Your task to perform on an android device: check android version Image 0: 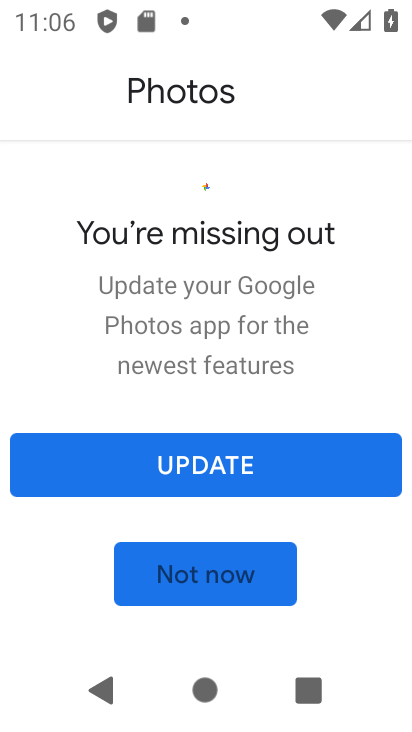
Step 0: press home button
Your task to perform on an android device: check android version Image 1: 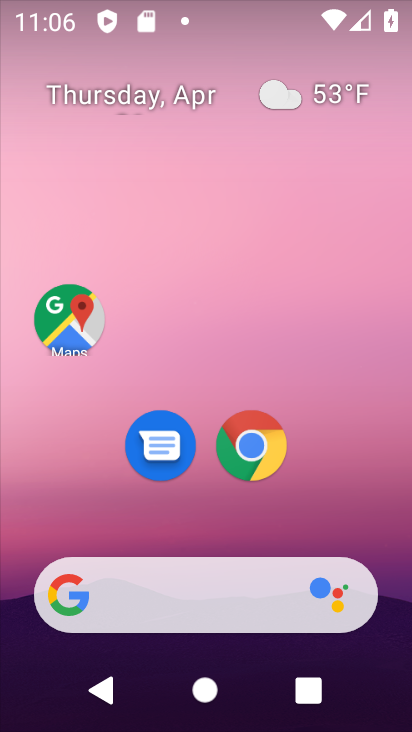
Step 1: drag from (139, 608) to (317, 131)
Your task to perform on an android device: check android version Image 2: 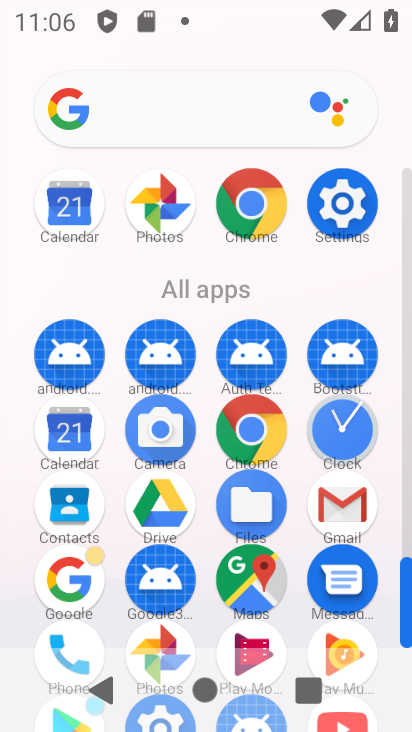
Step 2: click (332, 210)
Your task to perform on an android device: check android version Image 3: 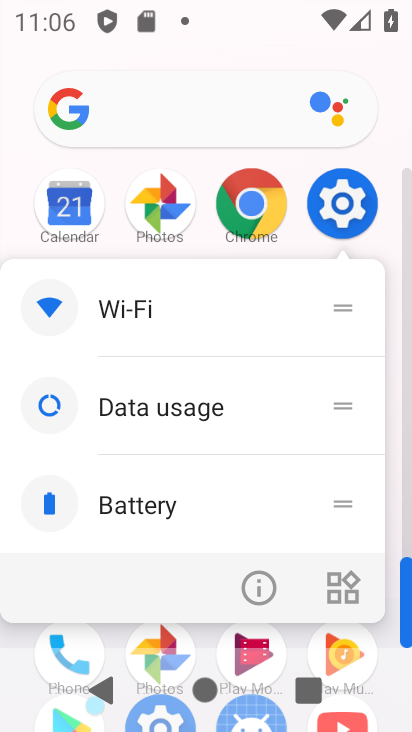
Step 3: click (347, 217)
Your task to perform on an android device: check android version Image 4: 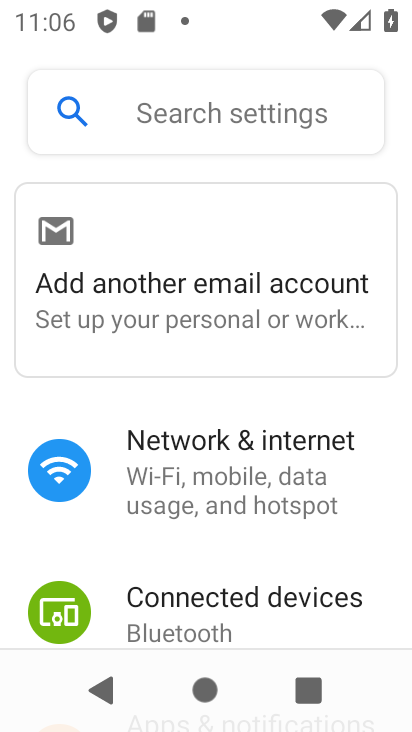
Step 4: drag from (237, 558) to (334, 218)
Your task to perform on an android device: check android version Image 5: 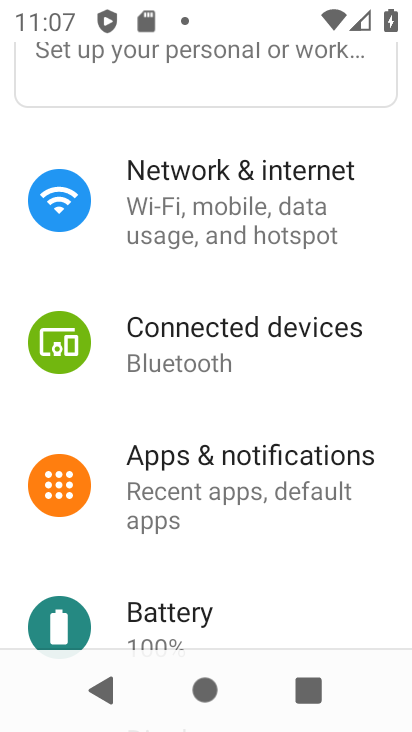
Step 5: drag from (242, 541) to (343, 185)
Your task to perform on an android device: check android version Image 6: 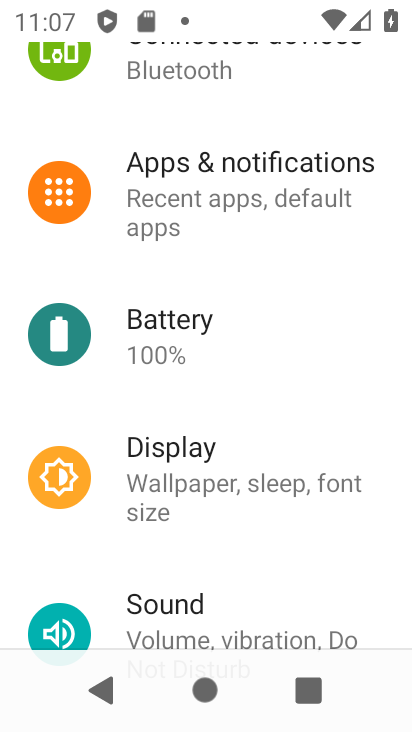
Step 6: drag from (147, 622) to (270, 283)
Your task to perform on an android device: check android version Image 7: 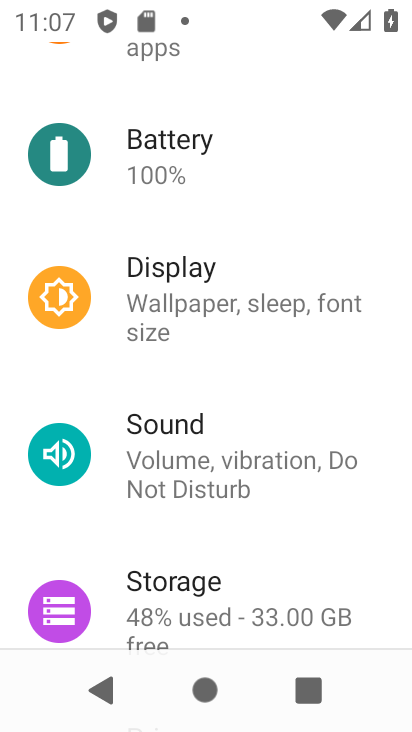
Step 7: drag from (168, 570) to (383, 121)
Your task to perform on an android device: check android version Image 8: 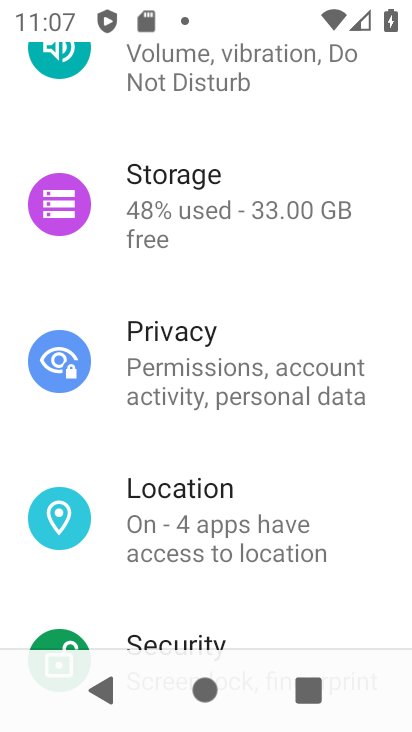
Step 8: drag from (173, 615) to (411, 64)
Your task to perform on an android device: check android version Image 9: 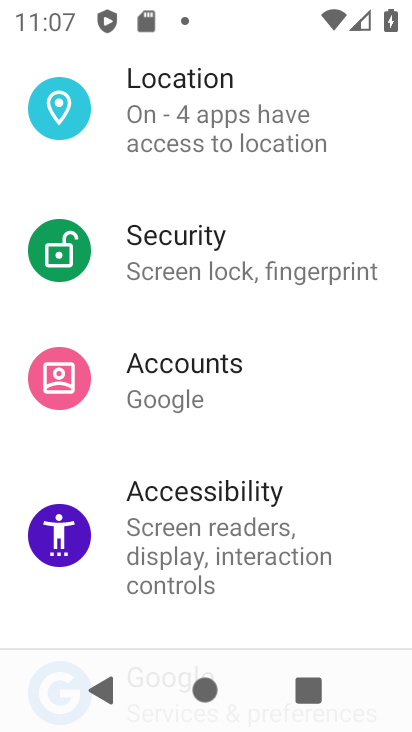
Step 9: drag from (194, 600) to (376, 103)
Your task to perform on an android device: check android version Image 10: 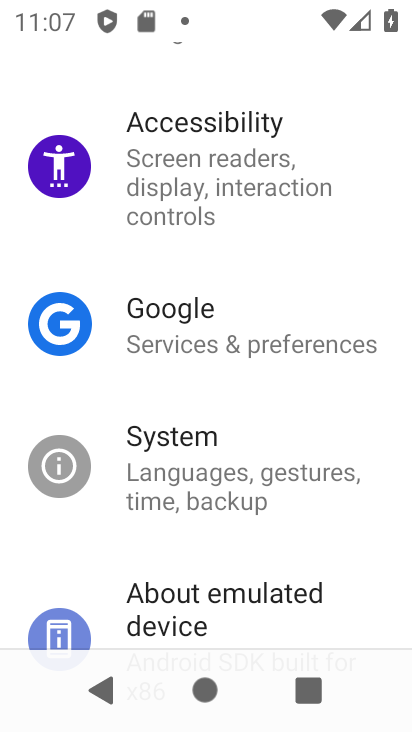
Step 10: click (168, 605)
Your task to perform on an android device: check android version Image 11: 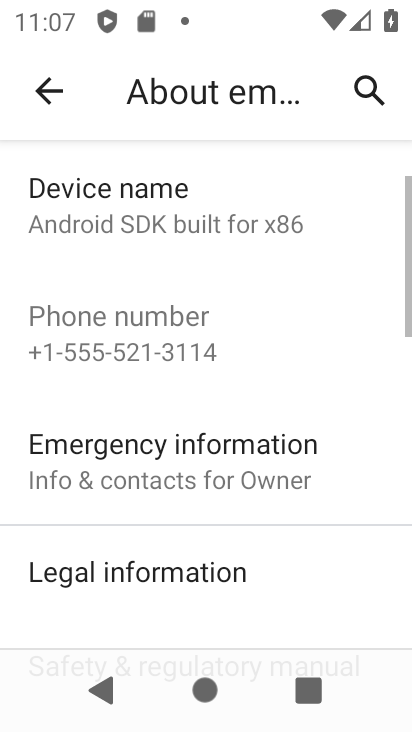
Step 11: drag from (178, 526) to (343, 133)
Your task to perform on an android device: check android version Image 12: 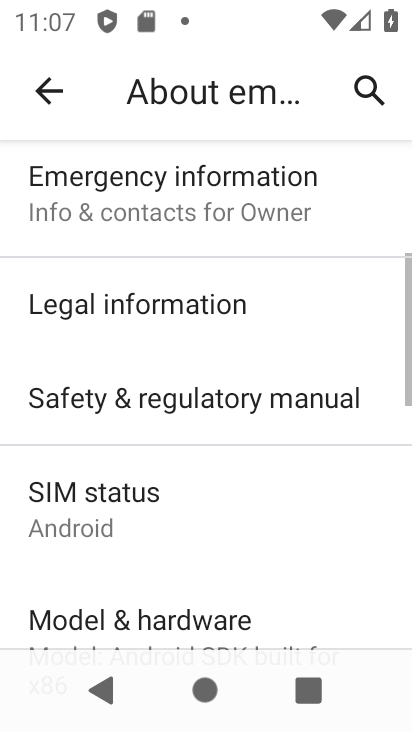
Step 12: drag from (155, 540) to (369, 109)
Your task to perform on an android device: check android version Image 13: 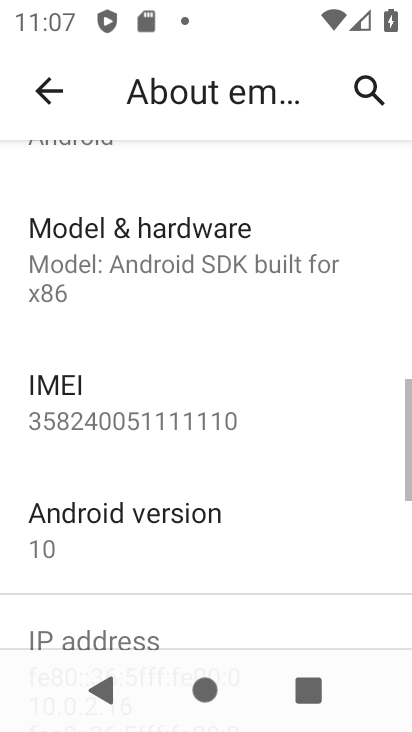
Step 13: click (137, 504)
Your task to perform on an android device: check android version Image 14: 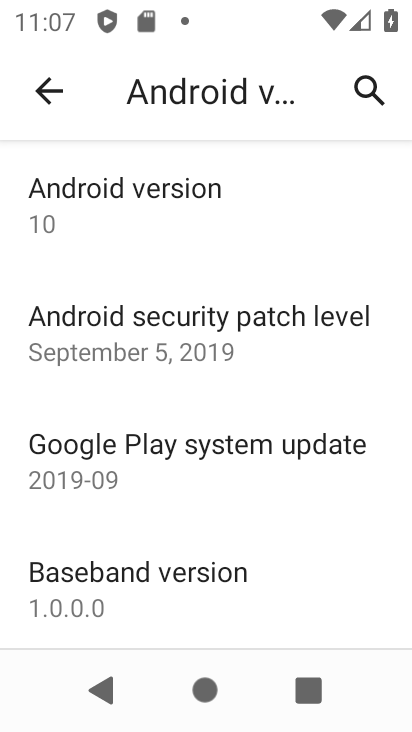
Step 14: task complete